Your task to perform on an android device: Open network settings Image 0: 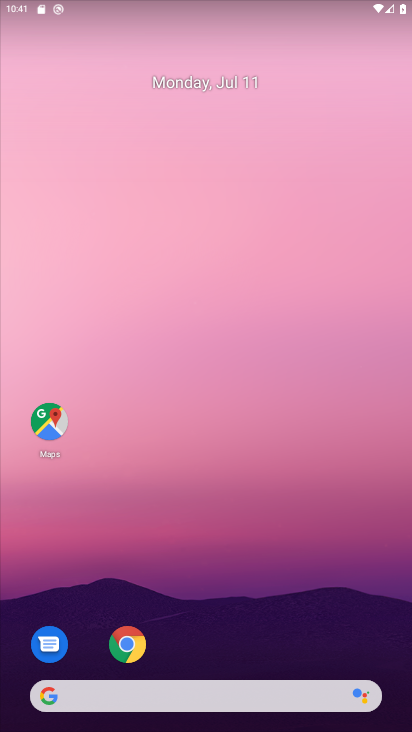
Step 0: drag from (275, 536) to (213, 67)
Your task to perform on an android device: Open network settings Image 1: 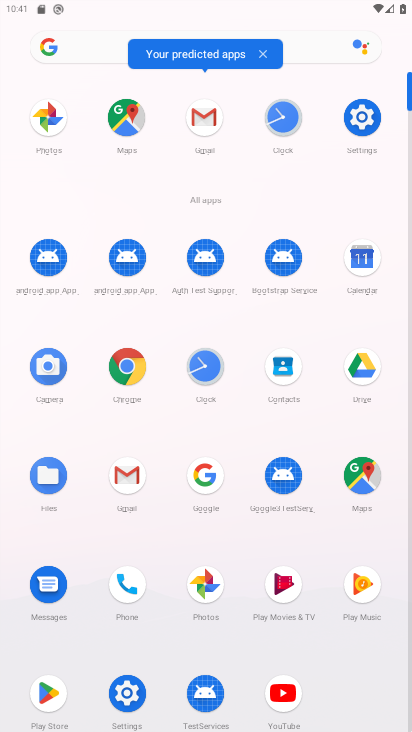
Step 1: click (353, 117)
Your task to perform on an android device: Open network settings Image 2: 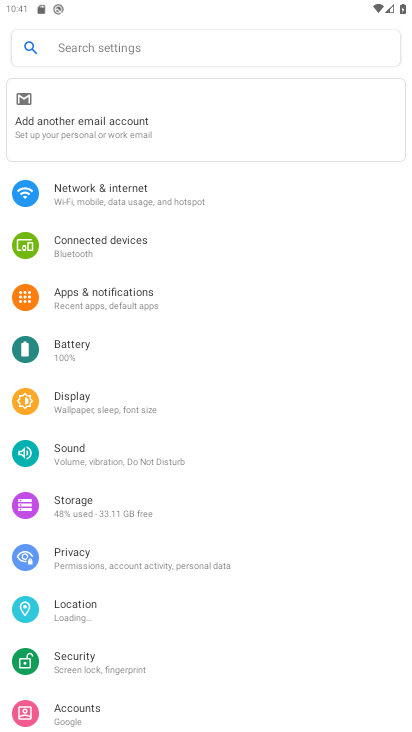
Step 2: click (198, 199)
Your task to perform on an android device: Open network settings Image 3: 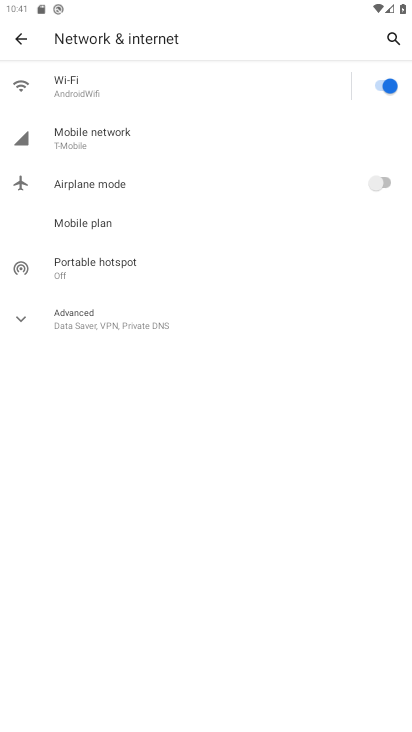
Step 3: click (152, 133)
Your task to perform on an android device: Open network settings Image 4: 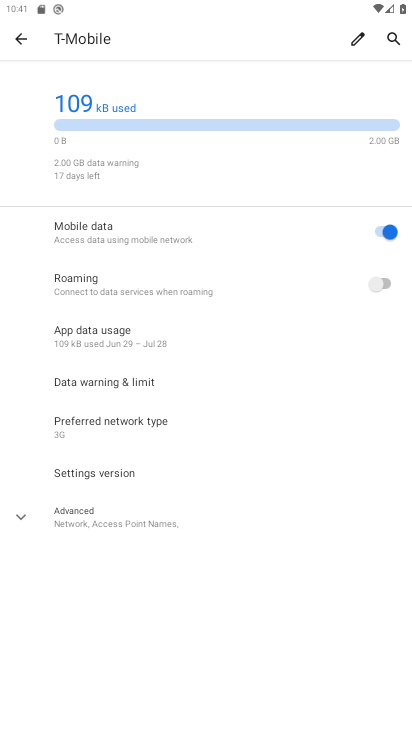
Step 4: task complete